Your task to perform on an android device: move an email to a new category in the gmail app Image 0: 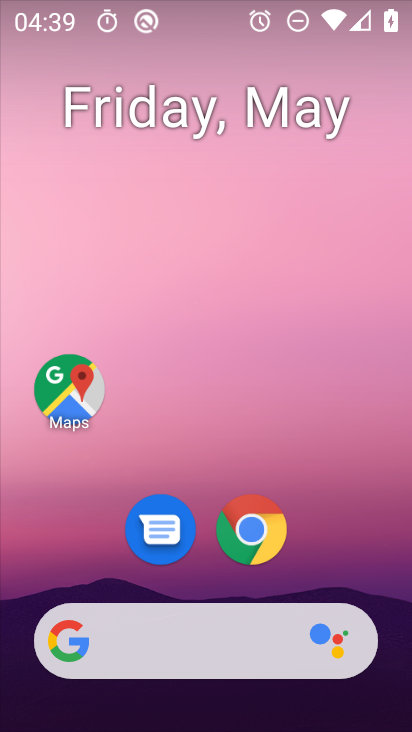
Step 0: drag from (398, 606) to (411, 218)
Your task to perform on an android device: move an email to a new category in the gmail app Image 1: 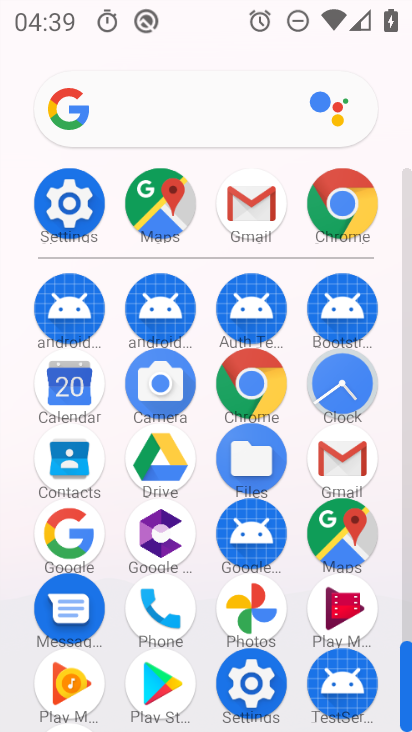
Step 1: click (236, 185)
Your task to perform on an android device: move an email to a new category in the gmail app Image 2: 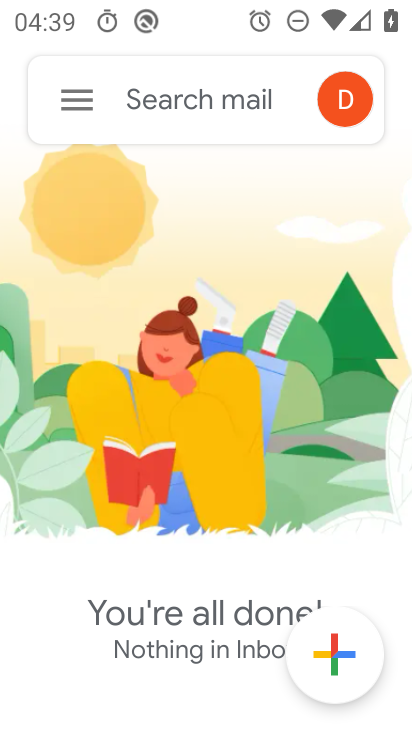
Step 2: click (80, 95)
Your task to perform on an android device: move an email to a new category in the gmail app Image 3: 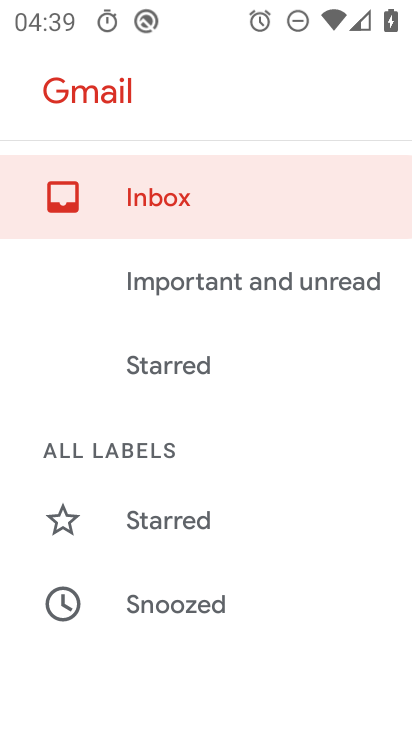
Step 3: click (136, 196)
Your task to perform on an android device: move an email to a new category in the gmail app Image 4: 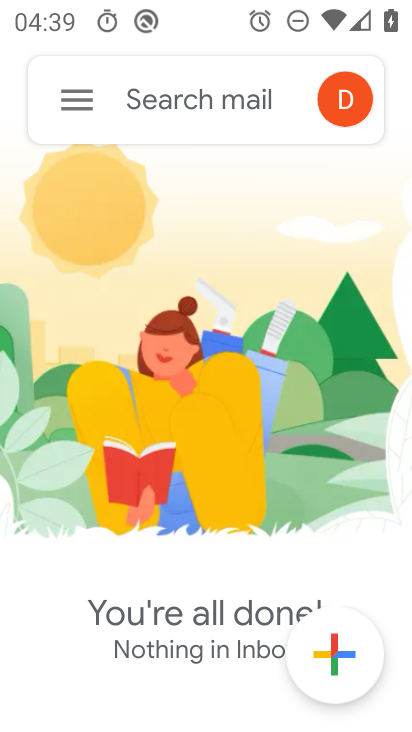
Step 4: task complete